Your task to perform on an android device: add a contact Image 0: 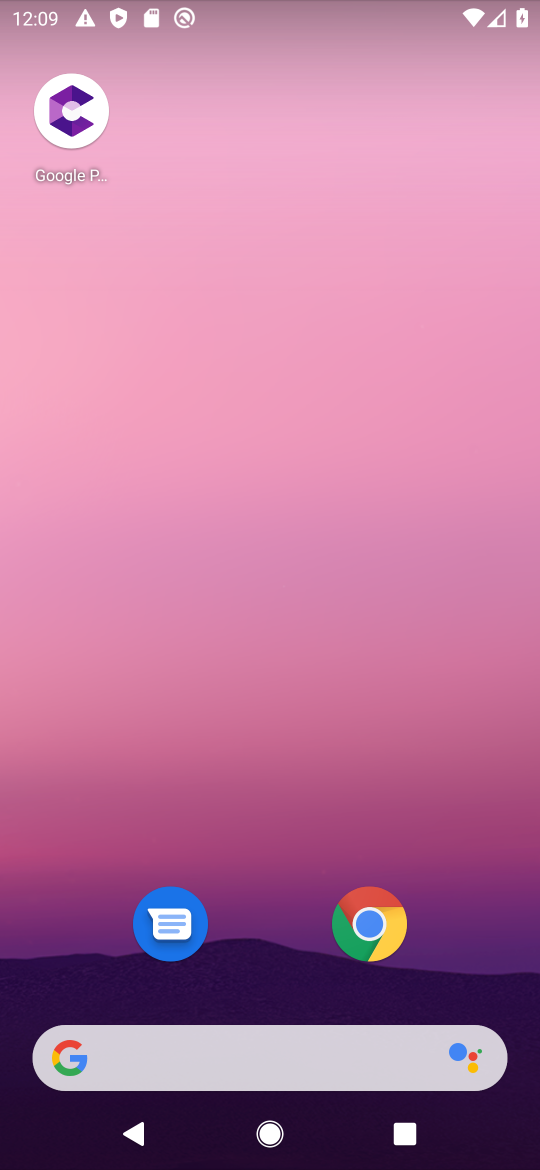
Step 0: drag from (287, 1009) to (179, 163)
Your task to perform on an android device: add a contact Image 1: 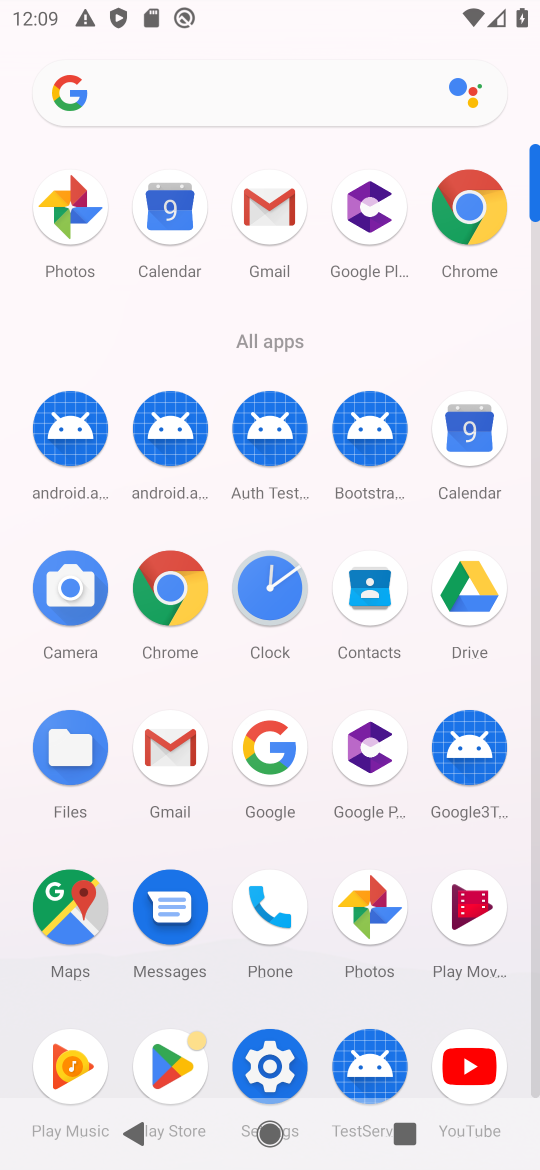
Step 1: click (377, 583)
Your task to perform on an android device: add a contact Image 2: 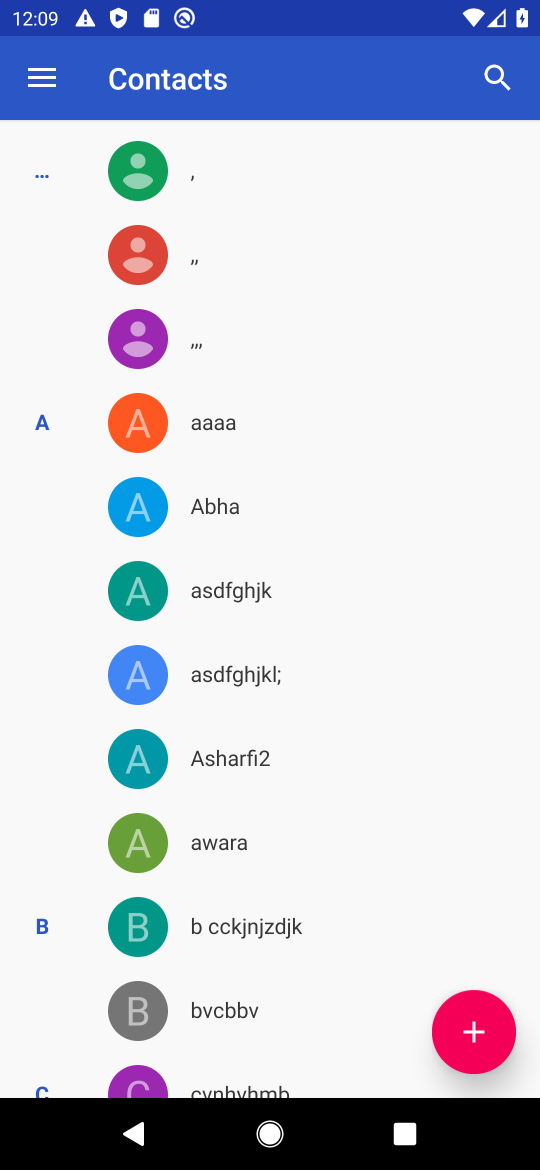
Step 2: click (446, 1013)
Your task to perform on an android device: add a contact Image 3: 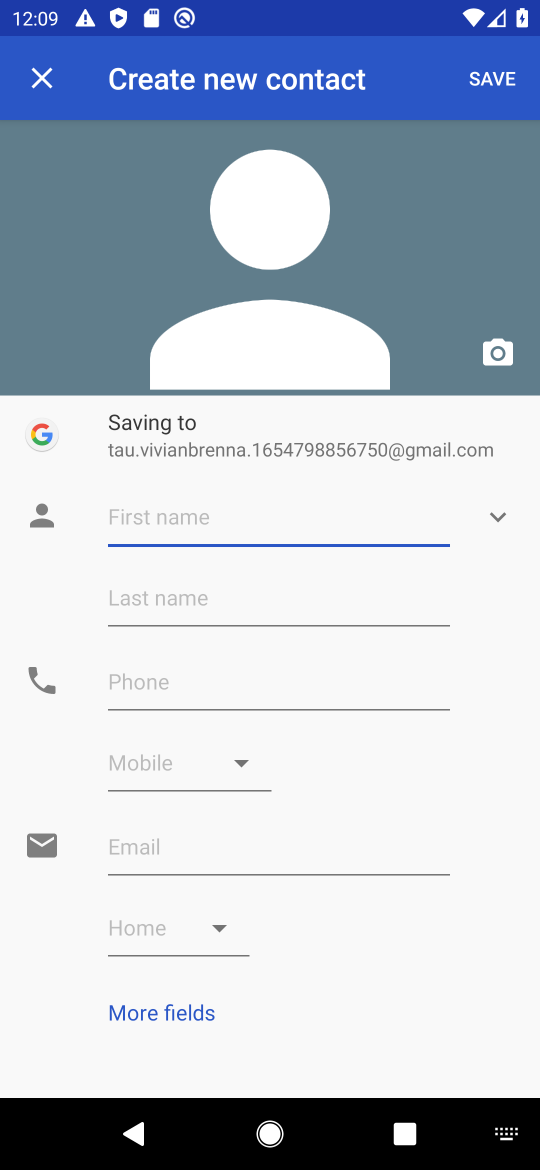
Step 3: type "yttfyui"
Your task to perform on an android device: add a contact Image 4: 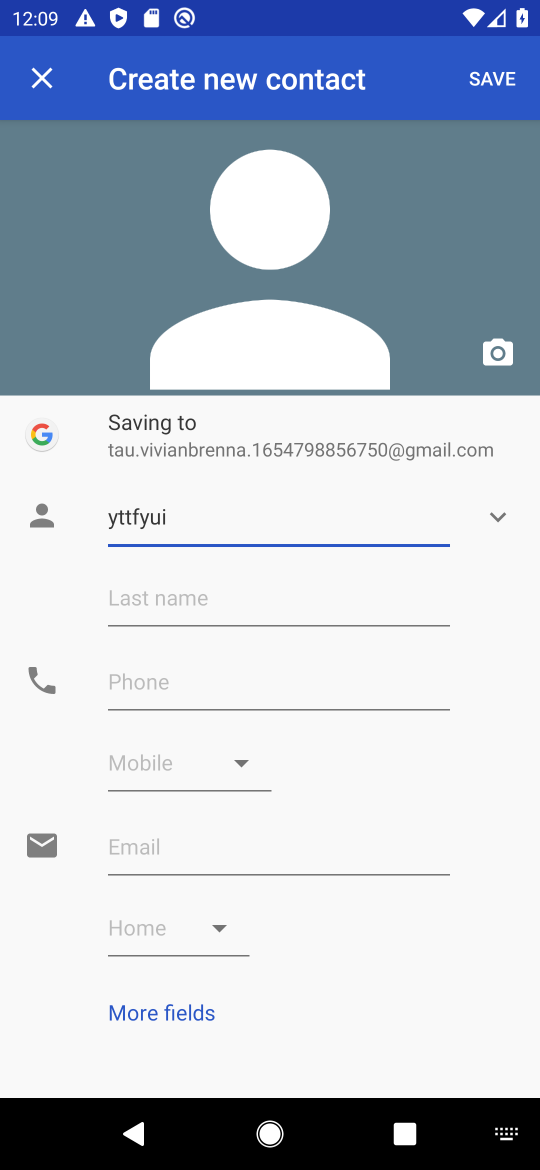
Step 4: click (231, 584)
Your task to perform on an android device: add a contact Image 5: 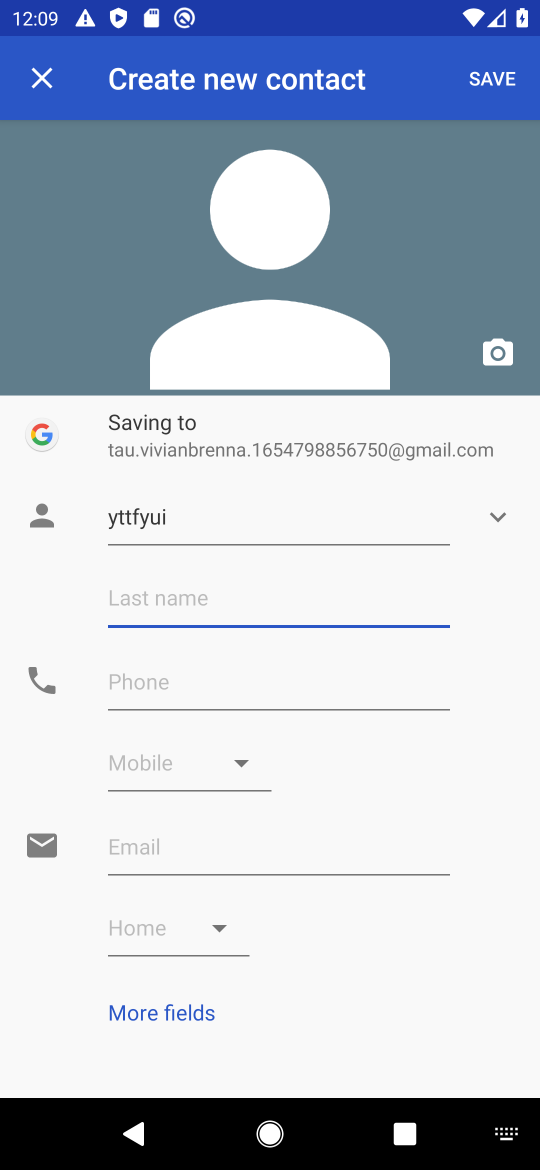
Step 5: type "jugdfgfhjhgk"
Your task to perform on an android device: add a contact Image 6: 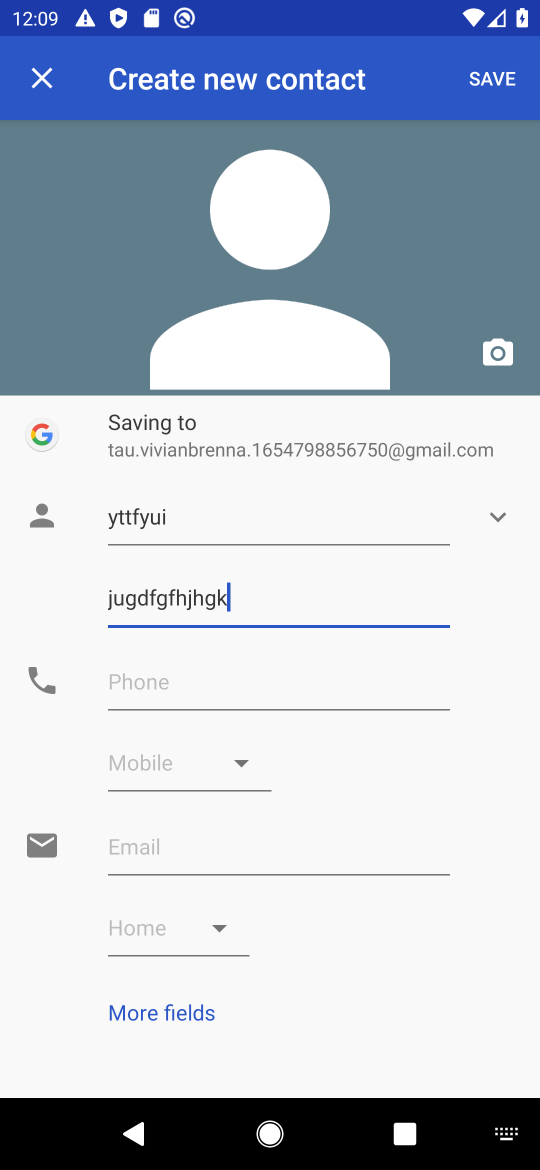
Step 6: click (155, 666)
Your task to perform on an android device: add a contact Image 7: 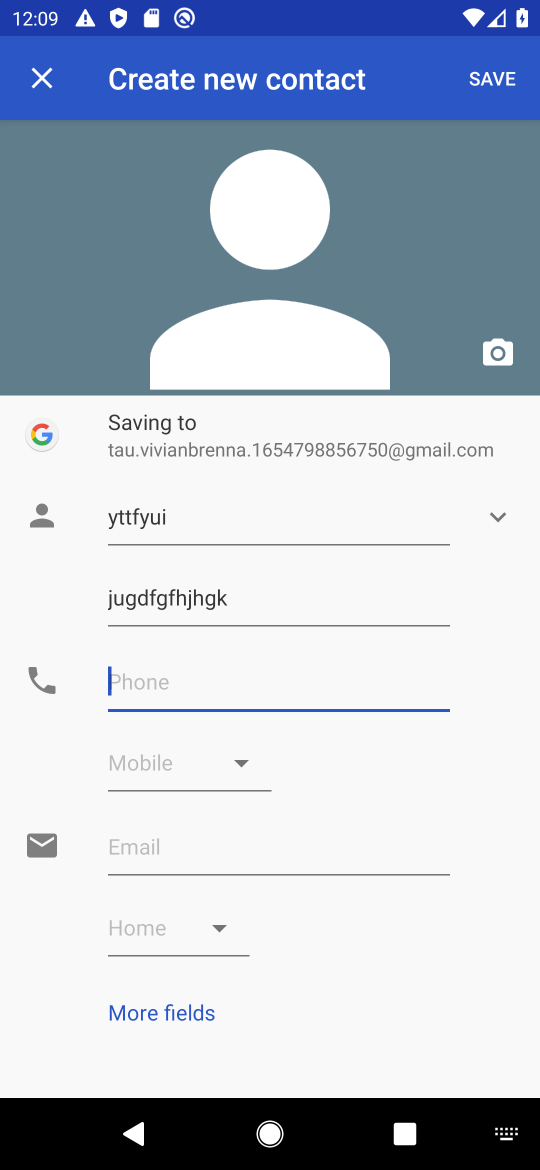
Step 7: click (155, 666)
Your task to perform on an android device: add a contact Image 8: 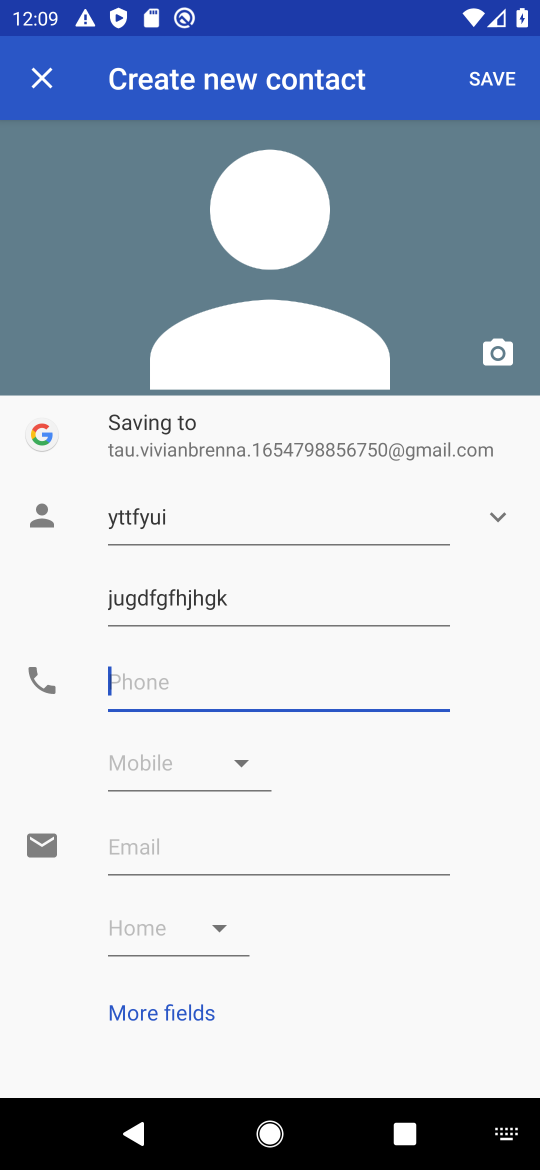
Step 8: type "09876ew2123456"
Your task to perform on an android device: add a contact Image 9: 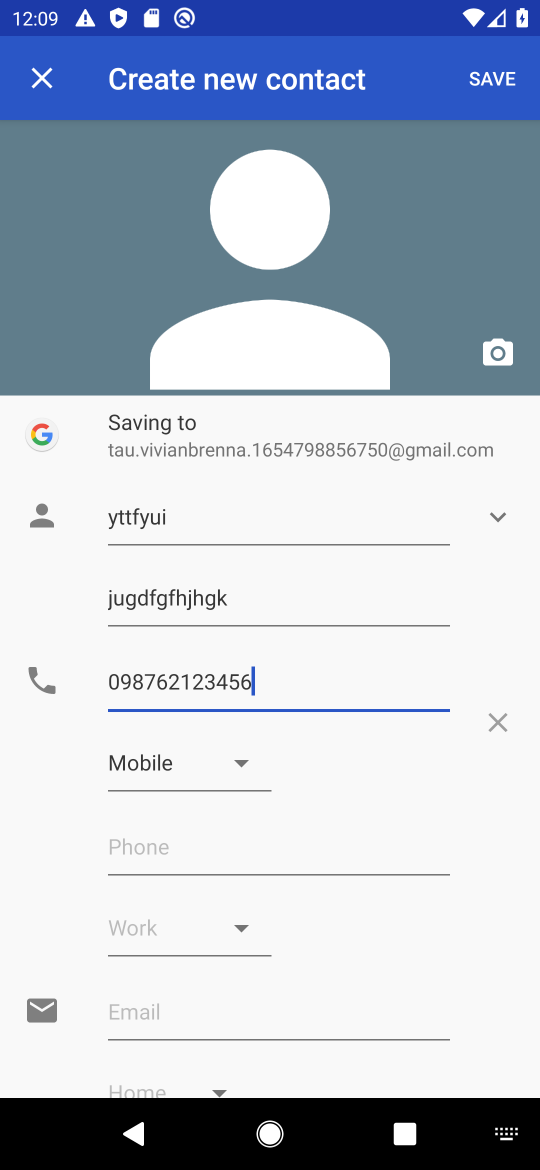
Step 9: click (466, 94)
Your task to perform on an android device: add a contact Image 10: 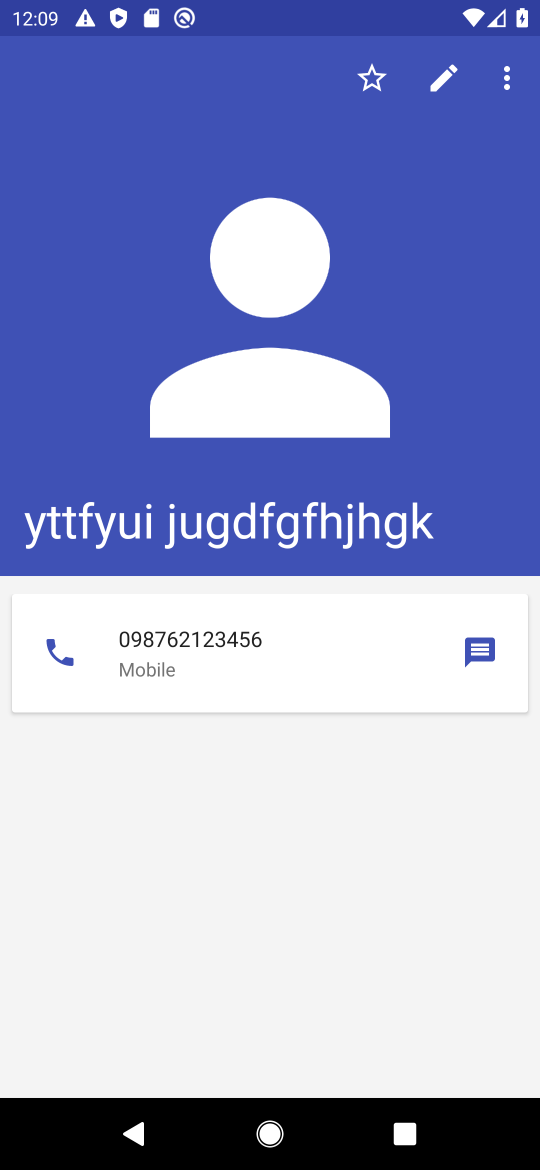
Step 10: task complete